Your task to perform on an android device: Is it going to rain today? Image 0: 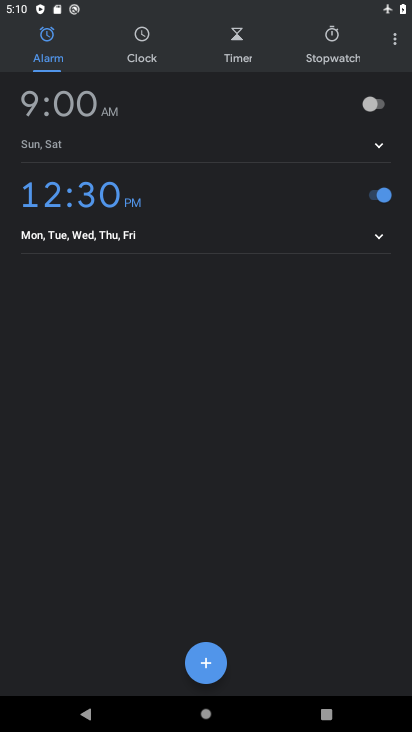
Step 0: click (207, 719)
Your task to perform on an android device: Is it going to rain today? Image 1: 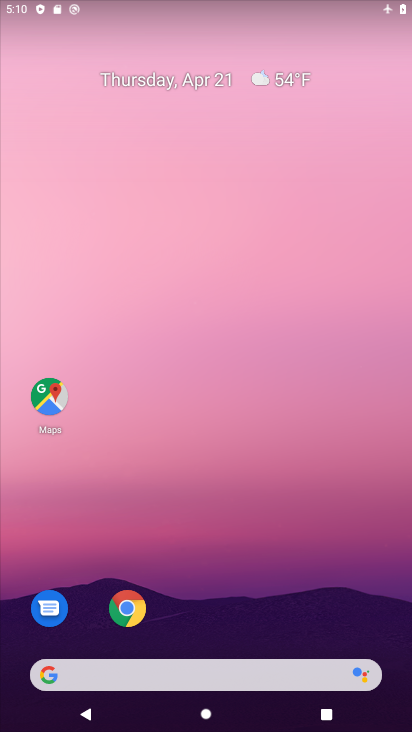
Step 1: click (130, 602)
Your task to perform on an android device: Is it going to rain today? Image 2: 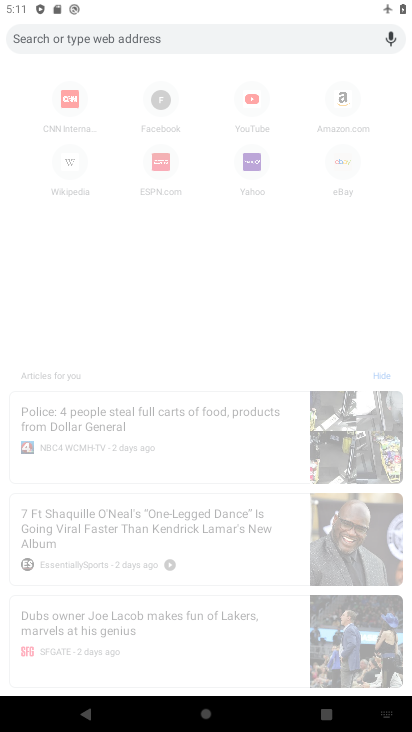
Step 2: type "rain"
Your task to perform on an android device: Is it going to rain today? Image 3: 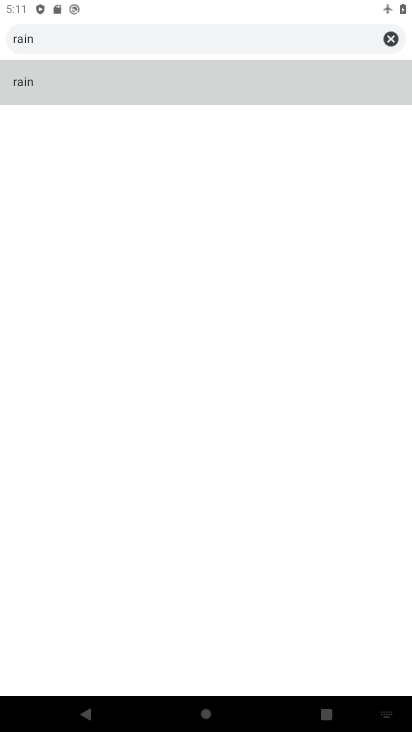
Step 3: click (251, 75)
Your task to perform on an android device: Is it going to rain today? Image 4: 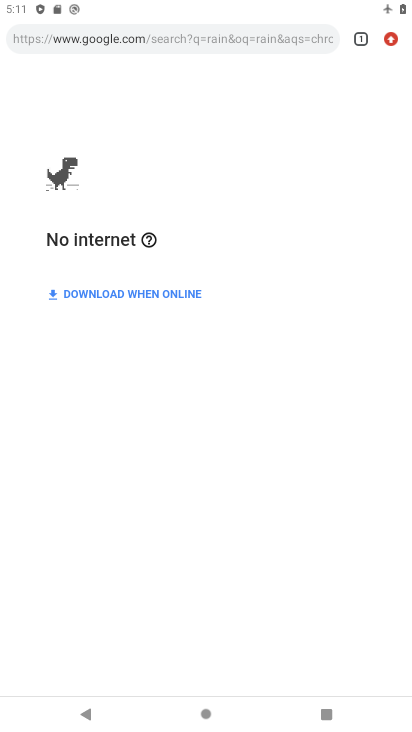
Step 4: click (89, 714)
Your task to perform on an android device: Is it going to rain today? Image 5: 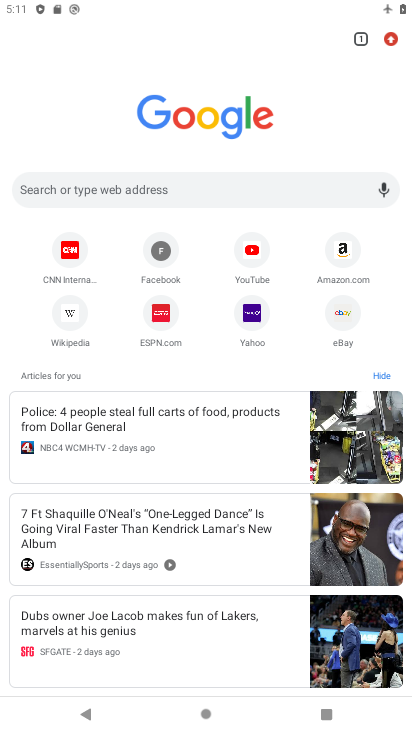
Step 5: press home button
Your task to perform on an android device: Is it going to rain today? Image 6: 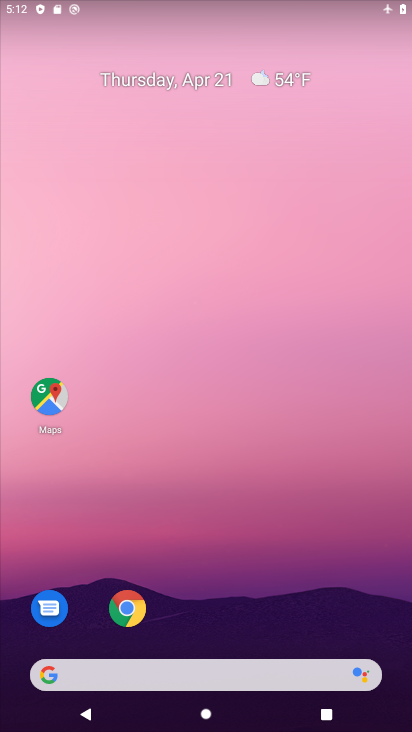
Step 6: click (80, 677)
Your task to perform on an android device: Is it going to rain today? Image 7: 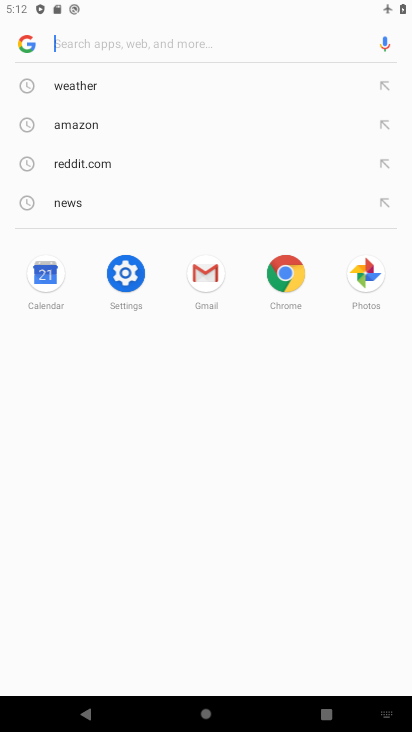
Step 7: click (89, 89)
Your task to perform on an android device: Is it going to rain today? Image 8: 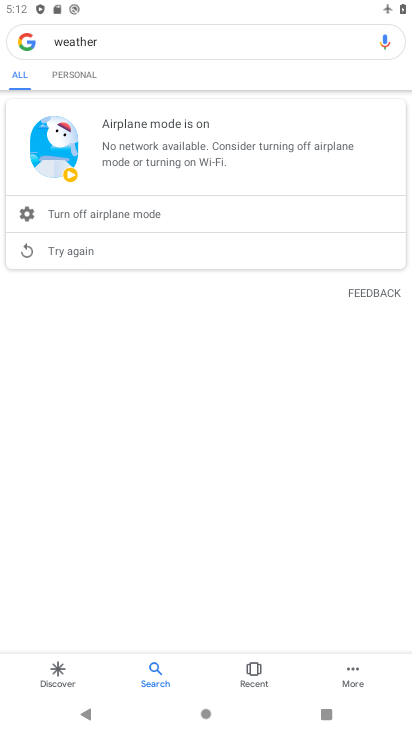
Step 8: click (217, 58)
Your task to perform on an android device: Is it going to rain today? Image 9: 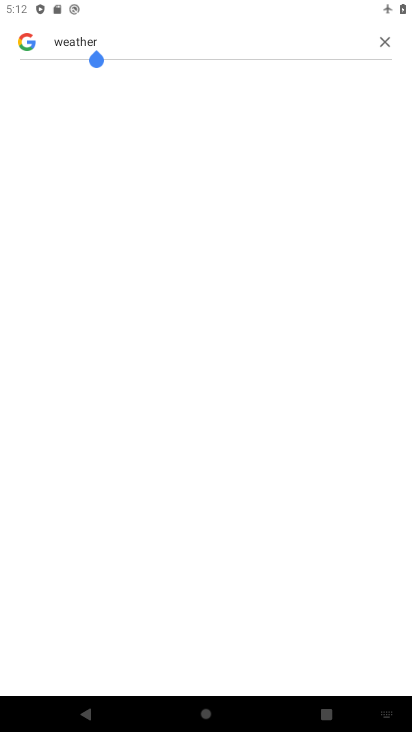
Step 9: click (214, 35)
Your task to perform on an android device: Is it going to rain today? Image 10: 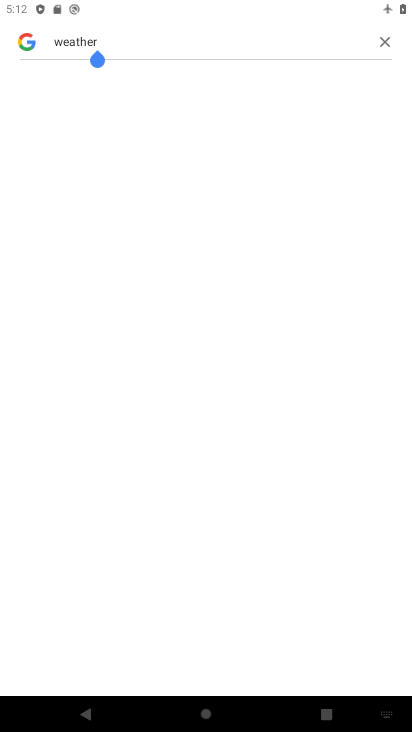
Step 10: click (214, 35)
Your task to perform on an android device: Is it going to rain today? Image 11: 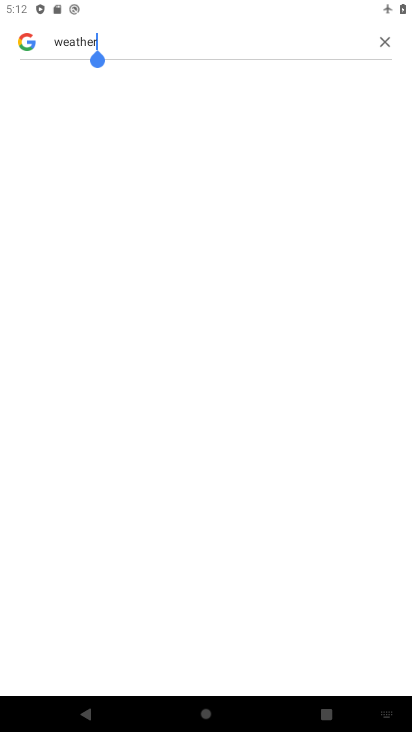
Step 11: click (214, 35)
Your task to perform on an android device: Is it going to rain today? Image 12: 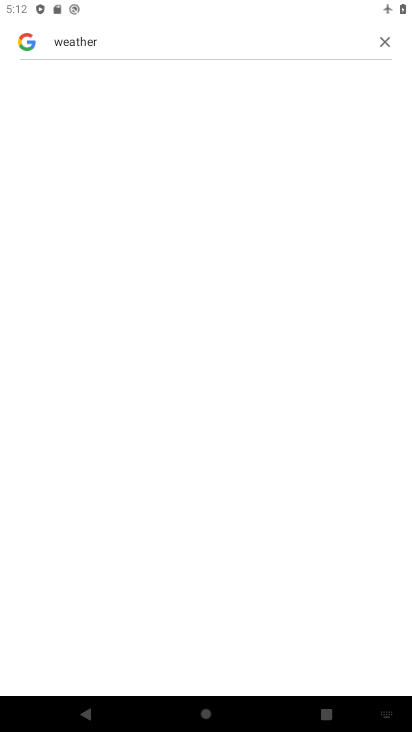
Step 12: click (380, 48)
Your task to perform on an android device: Is it going to rain today? Image 13: 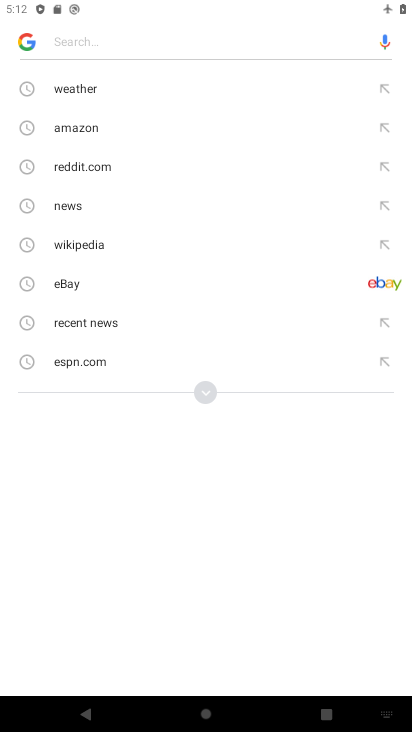
Step 13: click (380, 48)
Your task to perform on an android device: Is it going to rain today? Image 14: 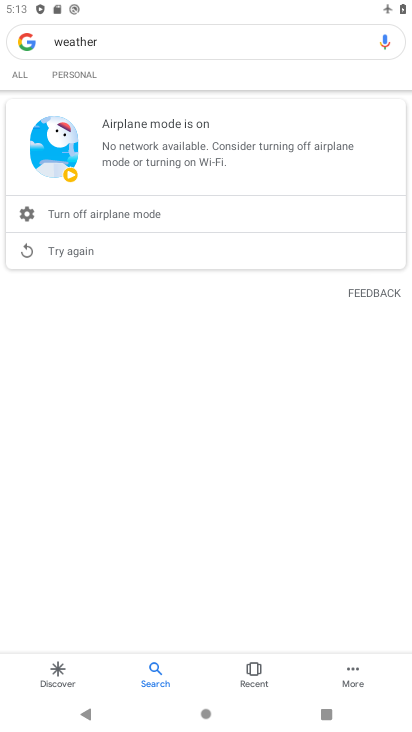
Step 14: type "weather"
Your task to perform on an android device: Is it going to rain today? Image 15: 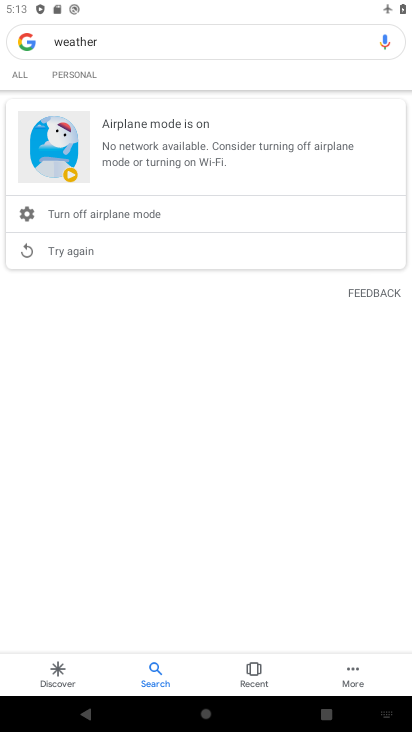
Step 15: task complete